Your task to perform on an android device: change the clock style Image 0: 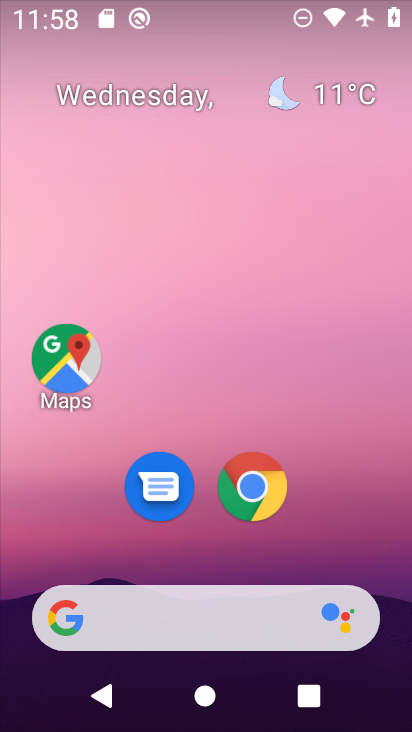
Step 0: drag from (319, 527) to (222, 18)
Your task to perform on an android device: change the clock style Image 1: 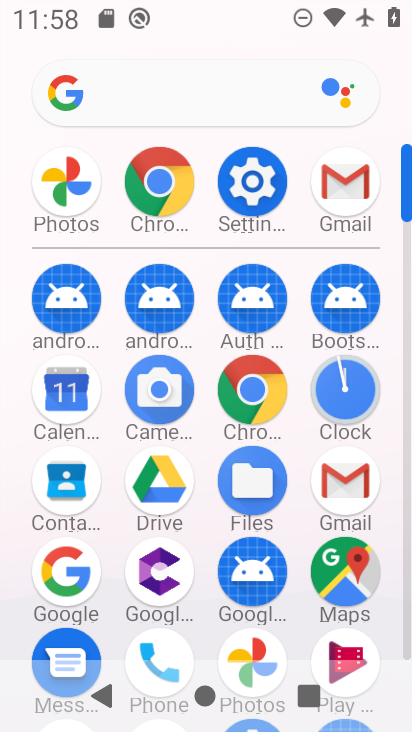
Step 1: drag from (9, 428) to (12, 246)
Your task to perform on an android device: change the clock style Image 2: 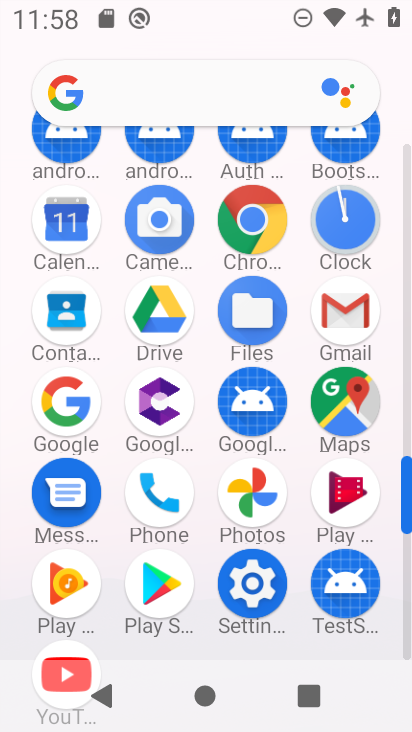
Step 2: click (343, 213)
Your task to perform on an android device: change the clock style Image 3: 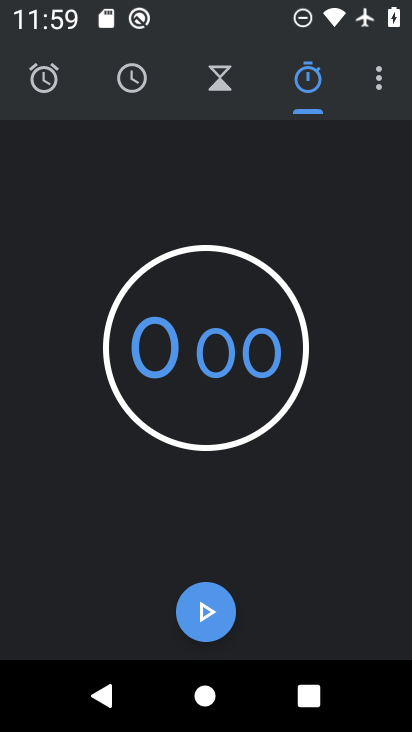
Step 3: task complete